Your task to perform on an android device: Open Android settings Image 0: 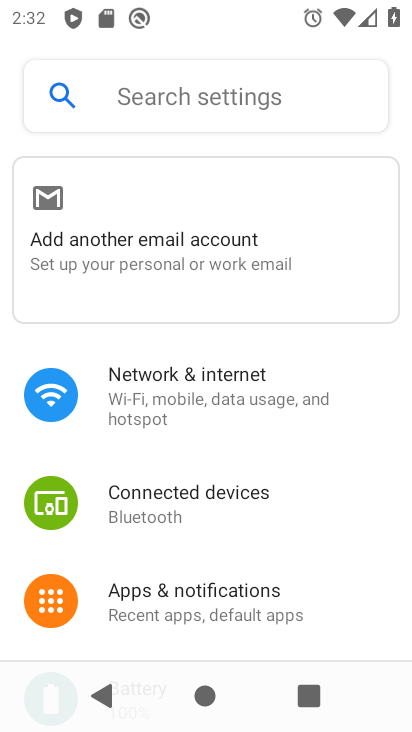
Step 0: drag from (344, 616) to (377, 231)
Your task to perform on an android device: Open Android settings Image 1: 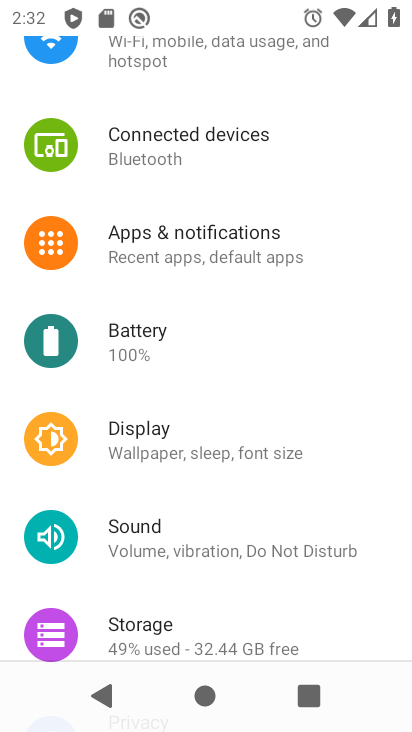
Step 1: drag from (320, 357) to (324, 181)
Your task to perform on an android device: Open Android settings Image 2: 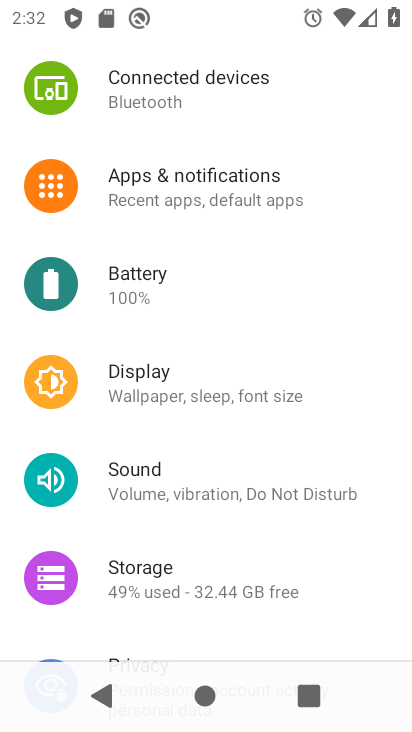
Step 2: drag from (313, 586) to (330, 220)
Your task to perform on an android device: Open Android settings Image 3: 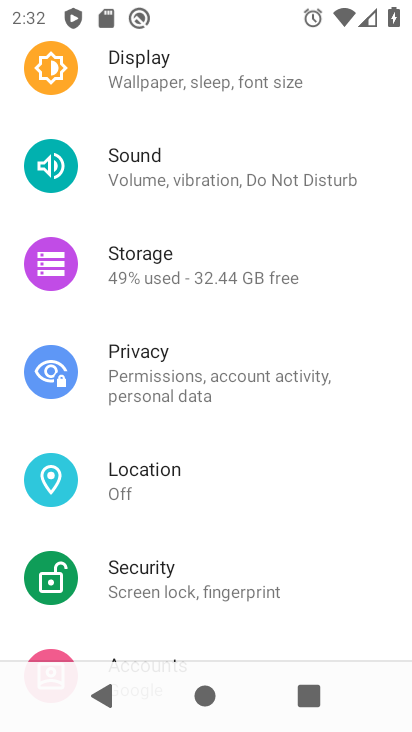
Step 3: drag from (319, 616) to (367, 140)
Your task to perform on an android device: Open Android settings Image 4: 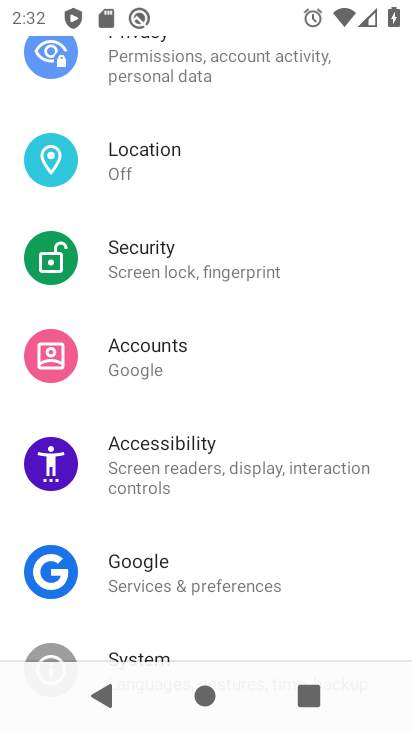
Step 4: drag from (322, 630) to (373, 217)
Your task to perform on an android device: Open Android settings Image 5: 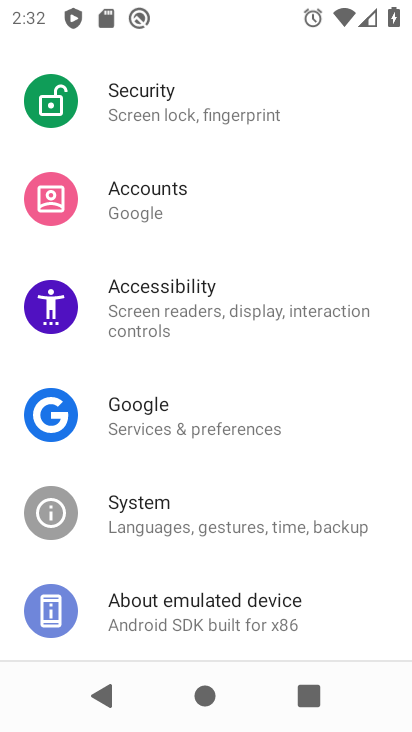
Step 5: click (225, 625)
Your task to perform on an android device: Open Android settings Image 6: 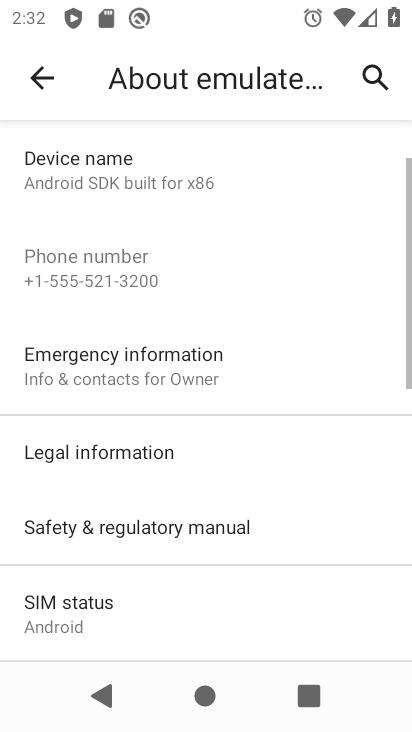
Step 6: task complete